Your task to perform on an android device: Show me popular videos on Youtube Image 0: 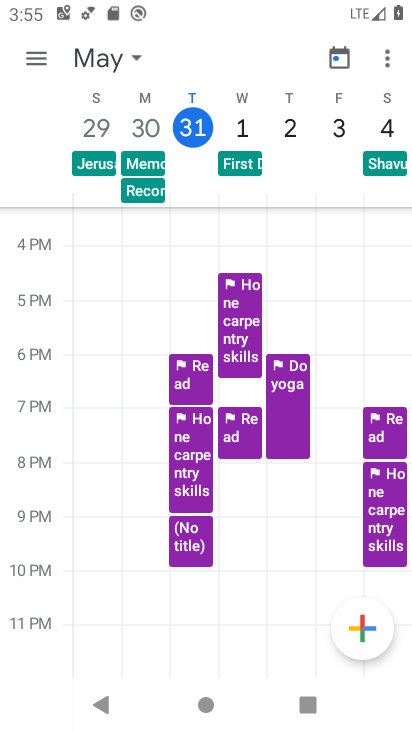
Step 0: press home button
Your task to perform on an android device: Show me popular videos on Youtube Image 1: 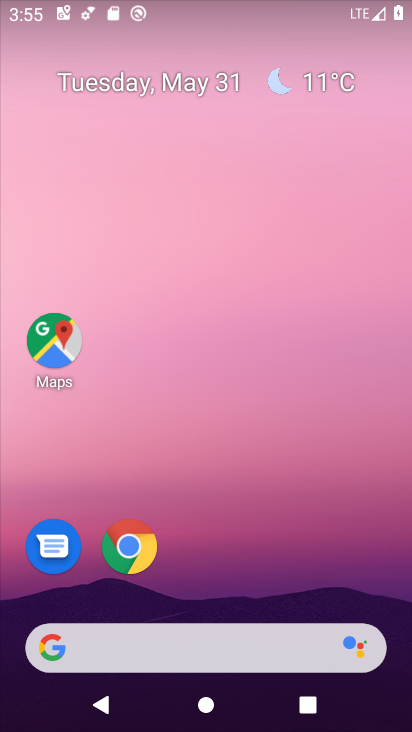
Step 1: drag from (285, 567) to (185, 83)
Your task to perform on an android device: Show me popular videos on Youtube Image 2: 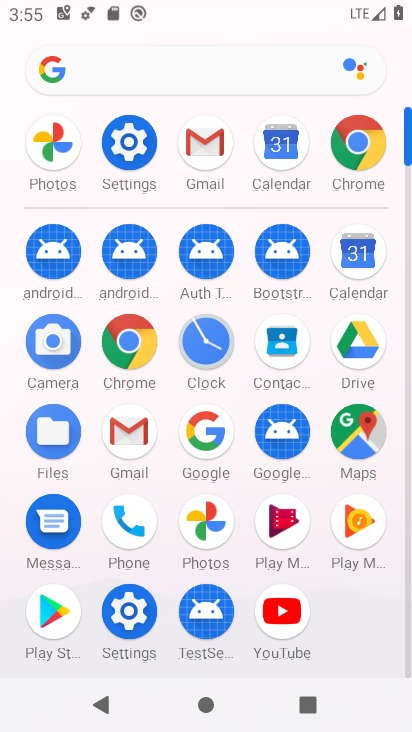
Step 2: click (284, 626)
Your task to perform on an android device: Show me popular videos on Youtube Image 3: 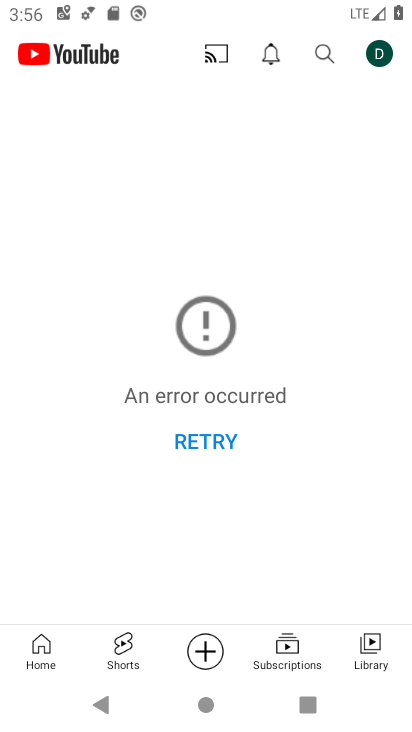
Step 3: click (53, 646)
Your task to perform on an android device: Show me popular videos on Youtube Image 4: 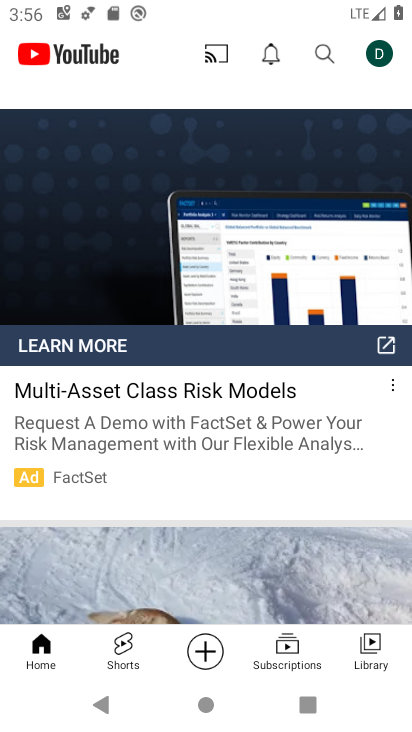
Step 4: click (86, 102)
Your task to perform on an android device: Show me popular videos on Youtube Image 5: 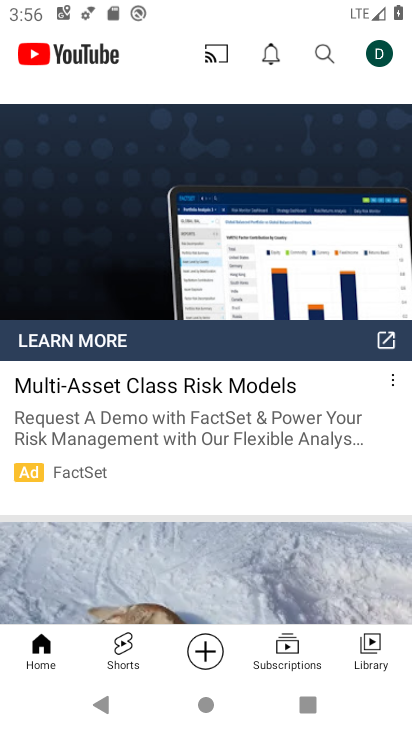
Step 5: drag from (117, 175) to (144, 581)
Your task to perform on an android device: Show me popular videos on Youtube Image 6: 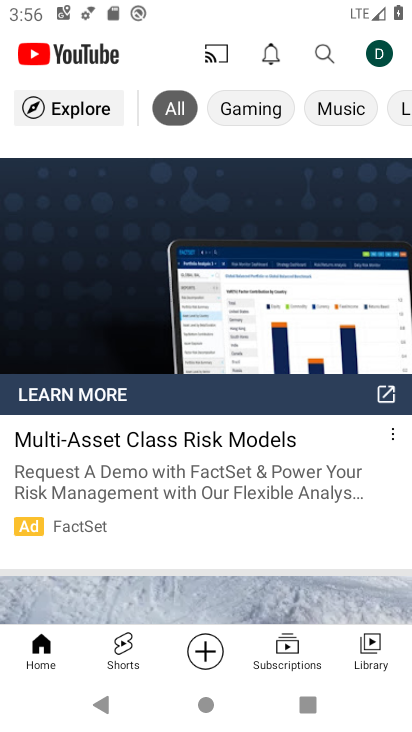
Step 6: click (93, 110)
Your task to perform on an android device: Show me popular videos on Youtube Image 7: 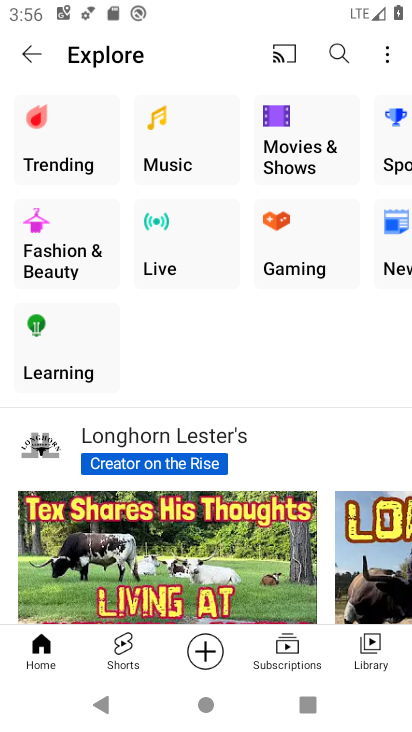
Step 7: click (64, 152)
Your task to perform on an android device: Show me popular videos on Youtube Image 8: 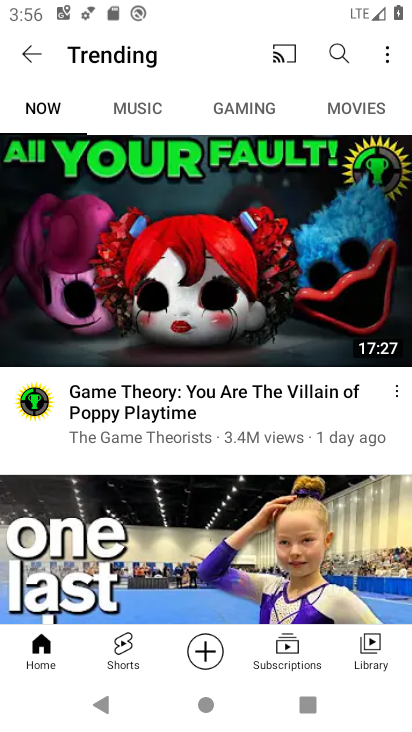
Step 8: task complete